Your task to perform on an android device: clear history in the chrome app Image 0: 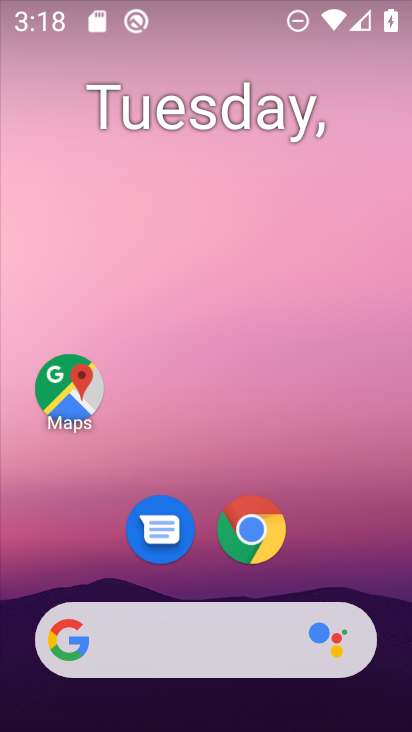
Step 0: click (240, 520)
Your task to perform on an android device: clear history in the chrome app Image 1: 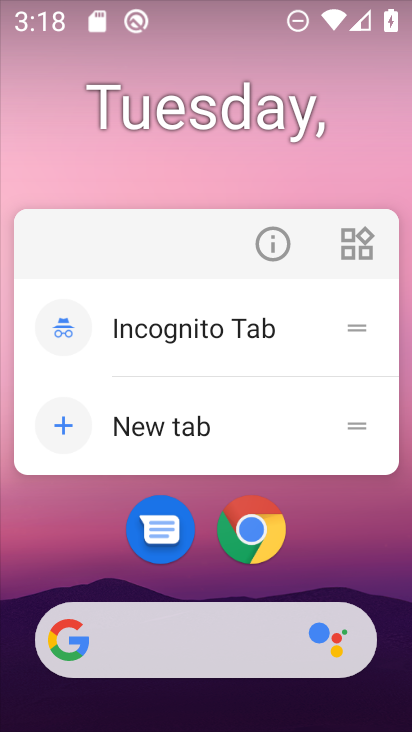
Step 1: click (256, 529)
Your task to perform on an android device: clear history in the chrome app Image 2: 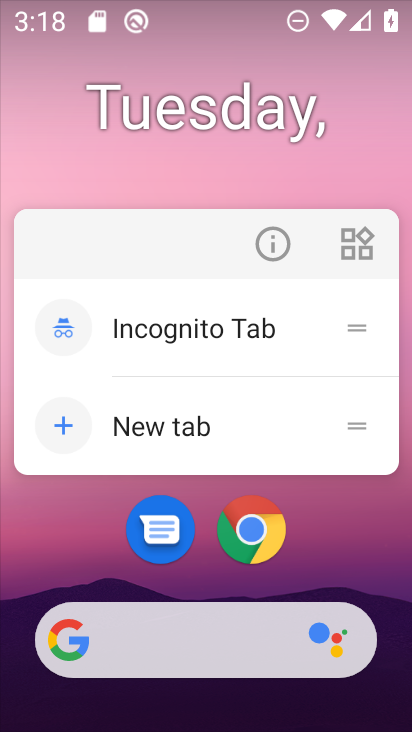
Step 2: click (265, 541)
Your task to perform on an android device: clear history in the chrome app Image 3: 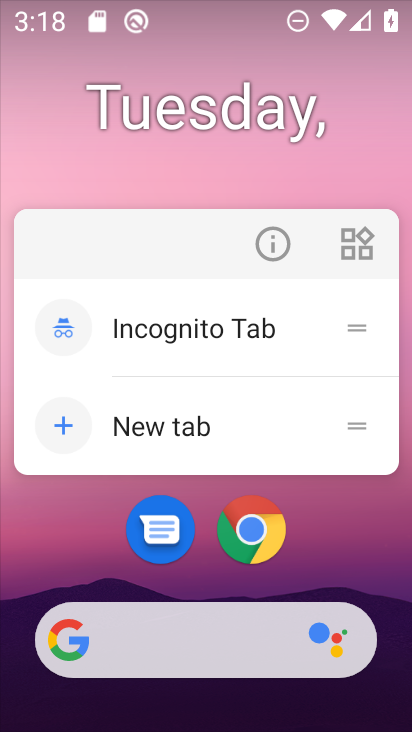
Step 3: click (273, 502)
Your task to perform on an android device: clear history in the chrome app Image 4: 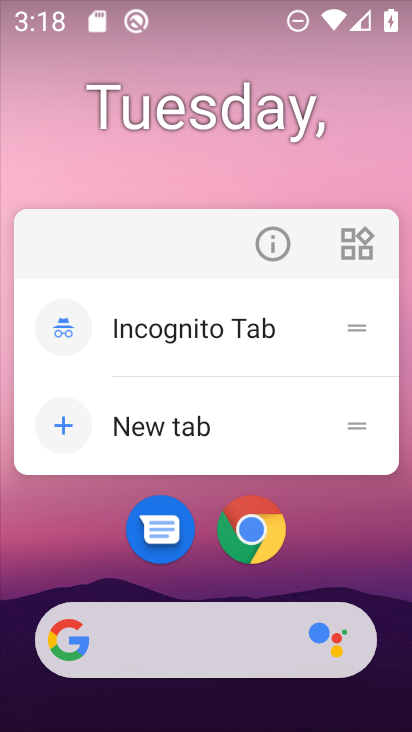
Step 4: click (250, 512)
Your task to perform on an android device: clear history in the chrome app Image 5: 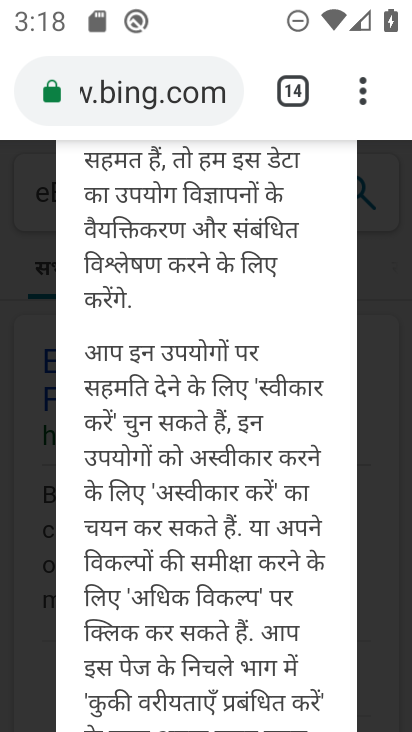
Step 5: click (380, 88)
Your task to perform on an android device: clear history in the chrome app Image 6: 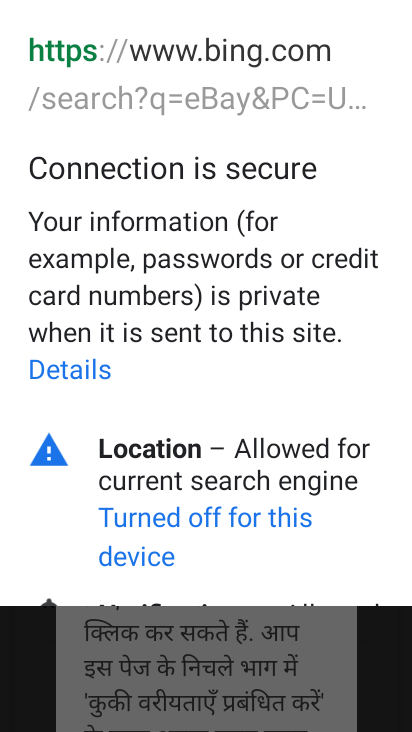
Step 6: press back button
Your task to perform on an android device: clear history in the chrome app Image 7: 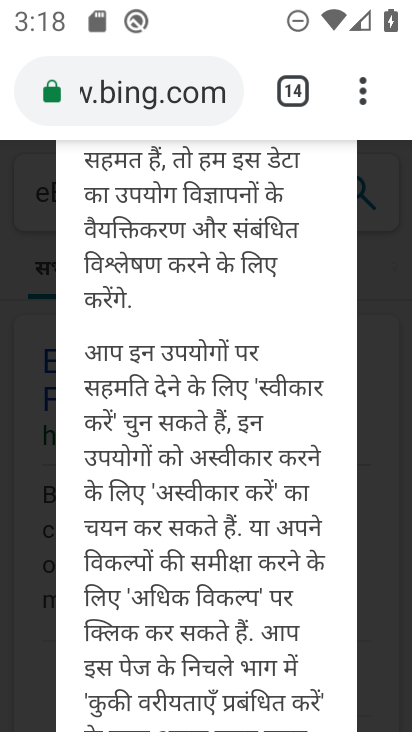
Step 7: click (355, 90)
Your task to perform on an android device: clear history in the chrome app Image 8: 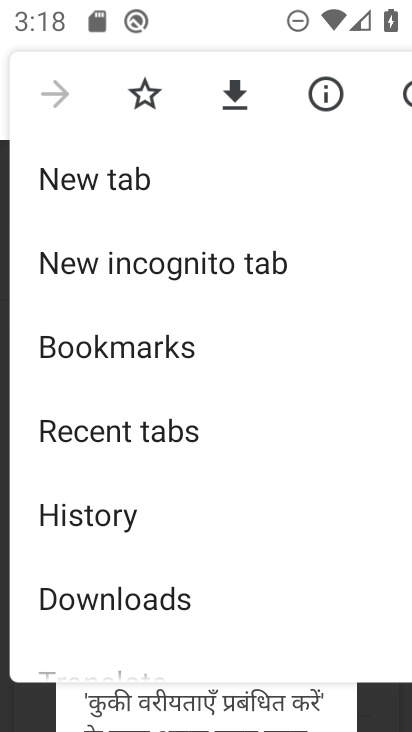
Step 8: click (106, 524)
Your task to perform on an android device: clear history in the chrome app Image 9: 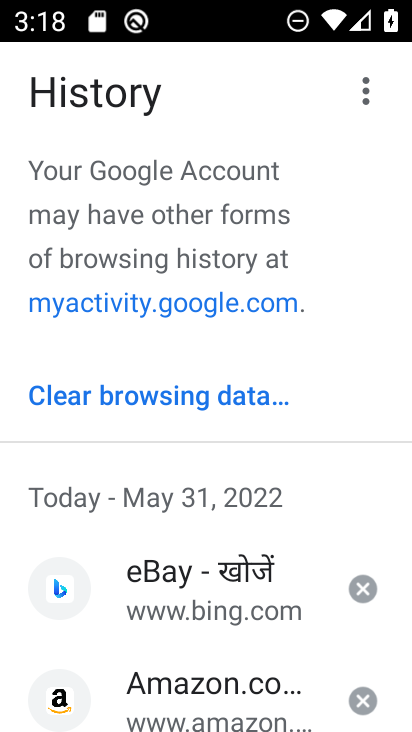
Step 9: click (159, 409)
Your task to perform on an android device: clear history in the chrome app Image 10: 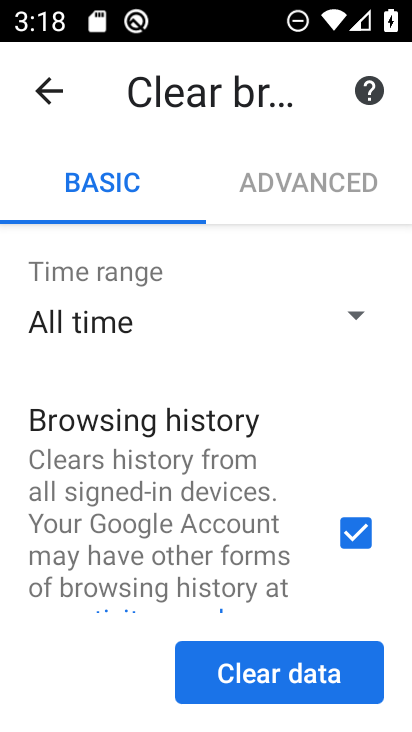
Step 10: click (292, 668)
Your task to perform on an android device: clear history in the chrome app Image 11: 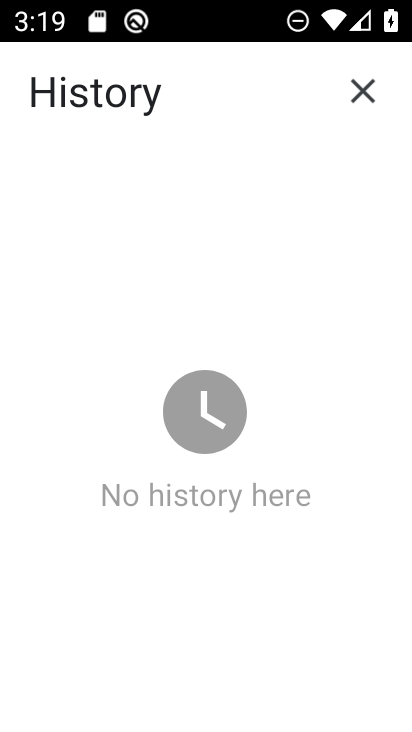
Step 11: task complete